Your task to perform on an android device: Go to internet settings Image 0: 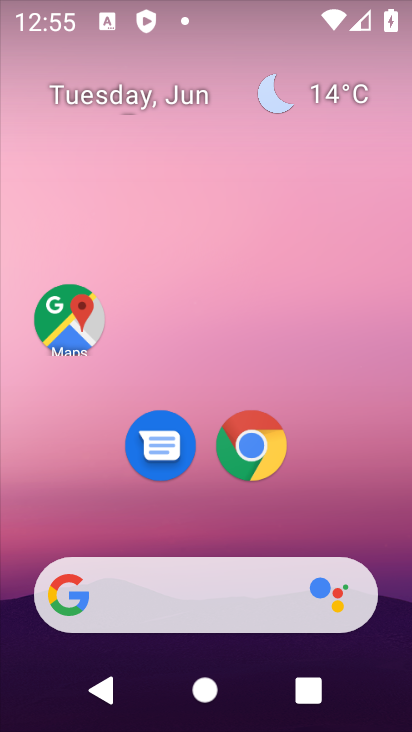
Step 0: drag from (221, 14) to (164, 519)
Your task to perform on an android device: Go to internet settings Image 1: 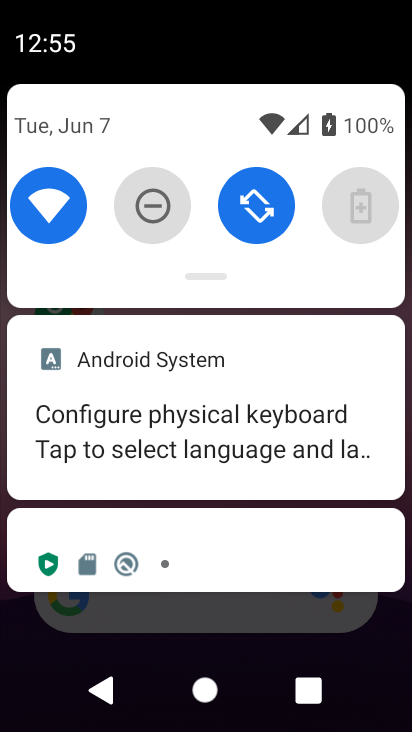
Step 1: drag from (164, 147) to (144, 555)
Your task to perform on an android device: Go to internet settings Image 2: 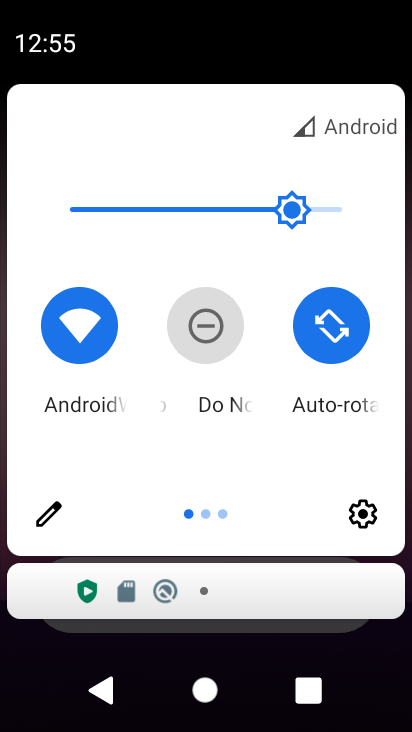
Step 2: drag from (323, 450) to (20, 449)
Your task to perform on an android device: Go to internet settings Image 3: 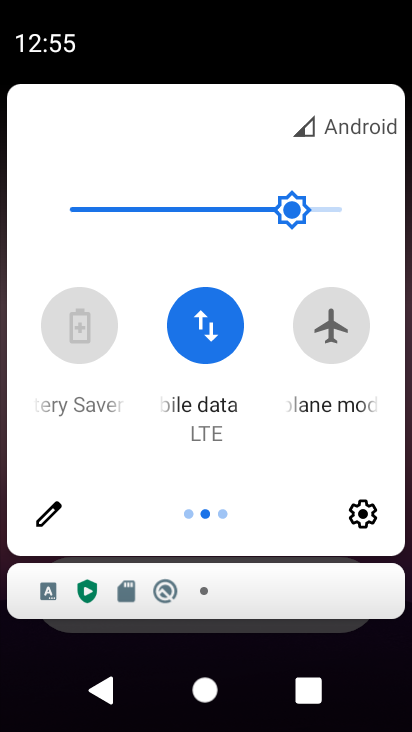
Step 3: drag from (334, 327) to (149, 572)
Your task to perform on an android device: Go to internet settings Image 4: 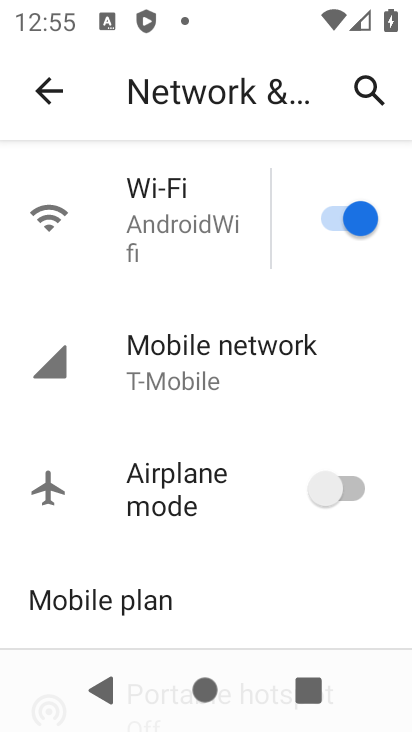
Step 4: click (211, 369)
Your task to perform on an android device: Go to internet settings Image 5: 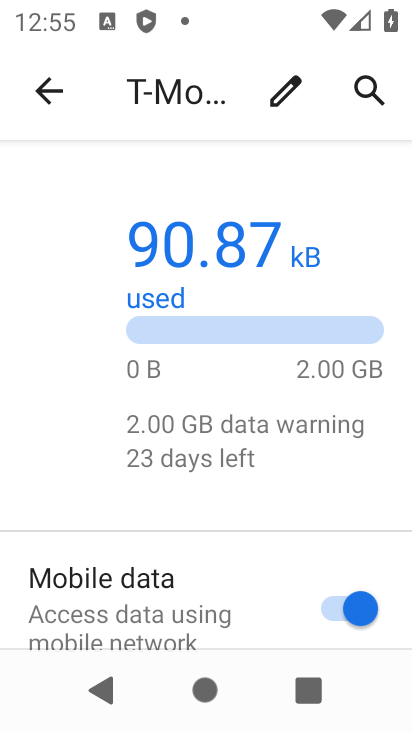
Step 5: task complete